Your task to perform on an android device: allow notifications from all sites in the chrome app Image 0: 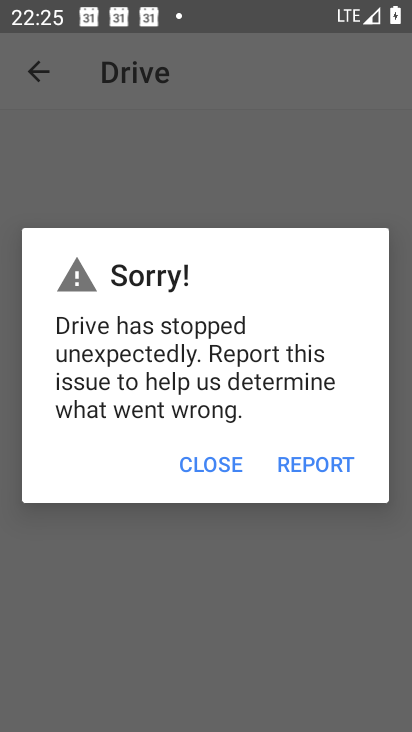
Step 0: press home button
Your task to perform on an android device: allow notifications from all sites in the chrome app Image 1: 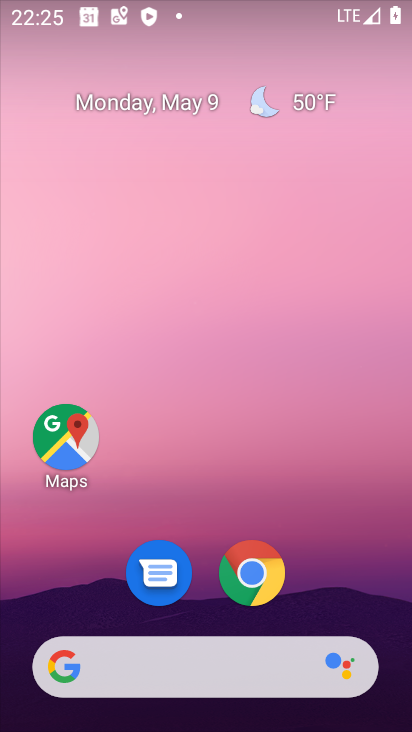
Step 1: click (248, 572)
Your task to perform on an android device: allow notifications from all sites in the chrome app Image 2: 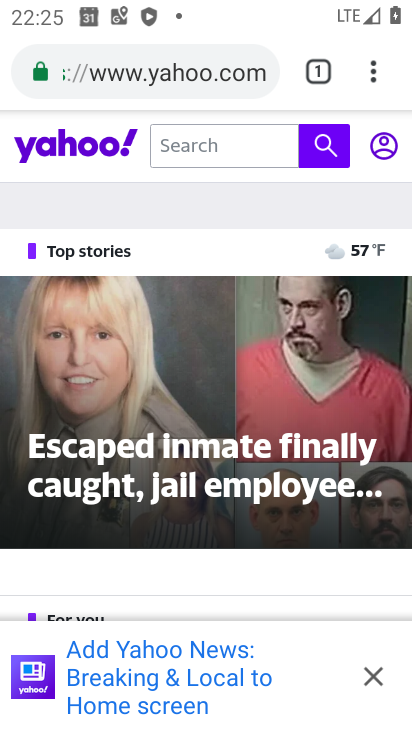
Step 2: drag from (376, 65) to (150, 567)
Your task to perform on an android device: allow notifications from all sites in the chrome app Image 3: 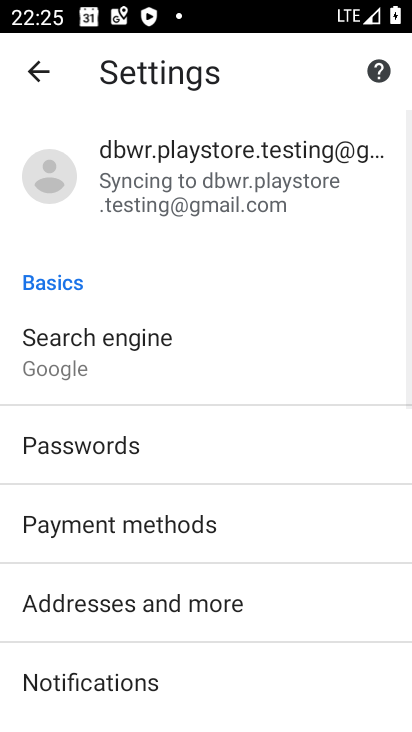
Step 3: drag from (234, 525) to (258, 188)
Your task to perform on an android device: allow notifications from all sites in the chrome app Image 4: 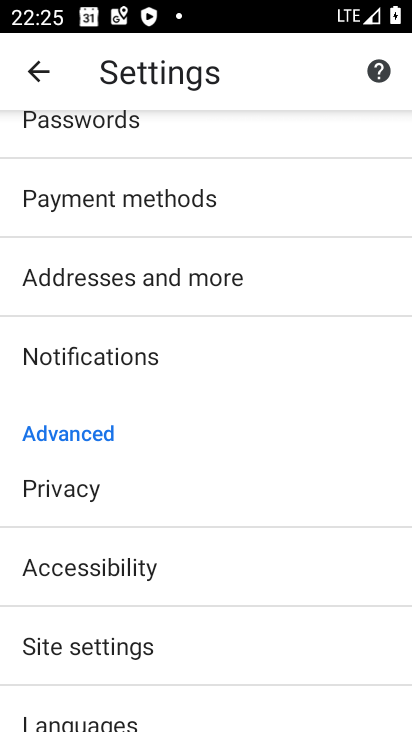
Step 4: click (162, 357)
Your task to perform on an android device: allow notifications from all sites in the chrome app Image 5: 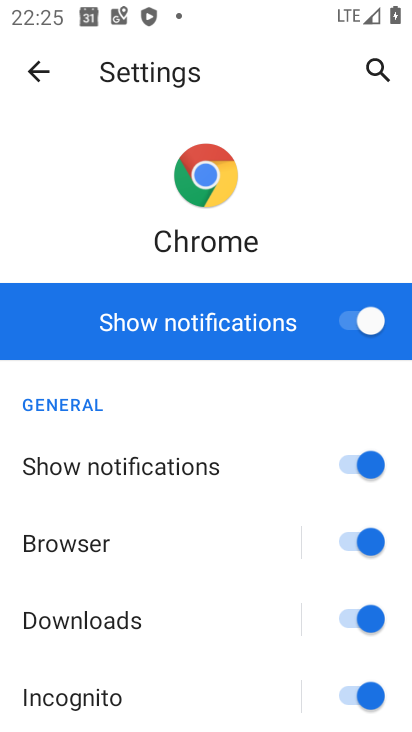
Step 5: task complete